Your task to perform on an android device: Open Android settings Image 0: 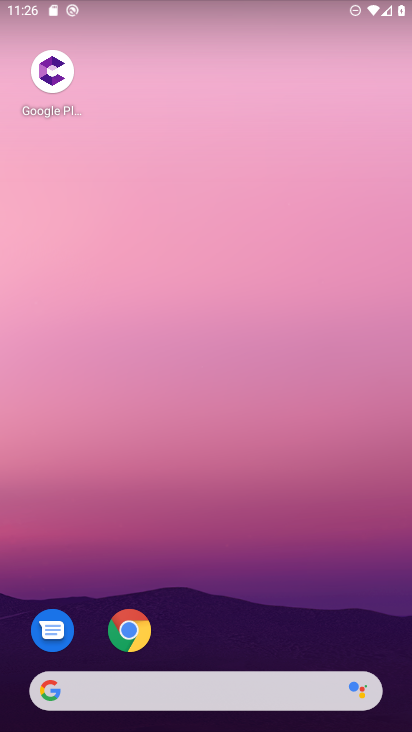
Step 0: drag from (409, 214) to (387, 449)
Your task to perform on an android device: Open Android settings Image 1: 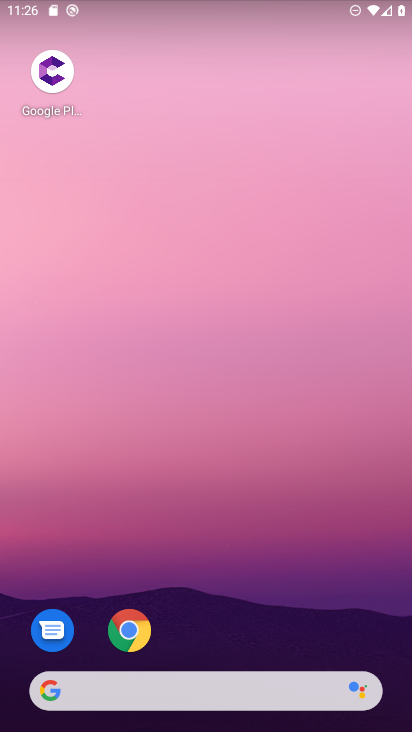
Step 1: drag from (255, 427) to (268, 2)
Your task to perform on an android device: Open Android settings Image 2: 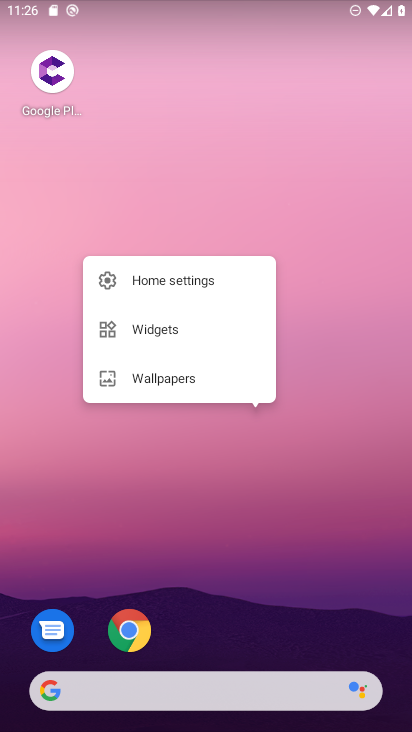
Step 2: click (217, 558)
Your task to perform on an android device: Open Android settings Image 3: 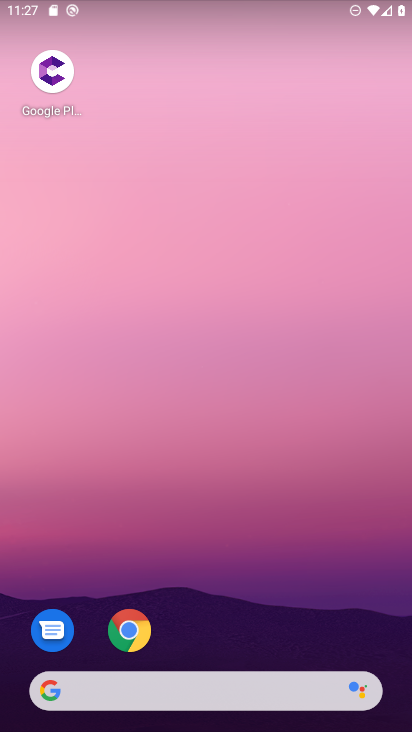
Step 3: drag from (282, 592) to (346, 0)
Your task to perform on an android device: Open Android settings Image 4: 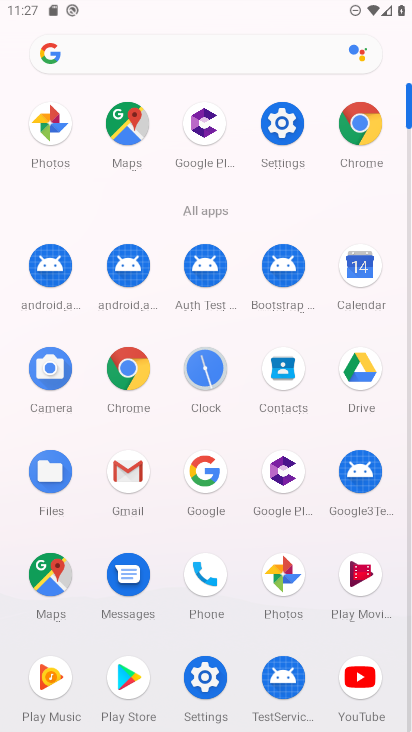
Step 4: click (279, 122)
Your task to perform on an android device: Open Android settings Image 5: 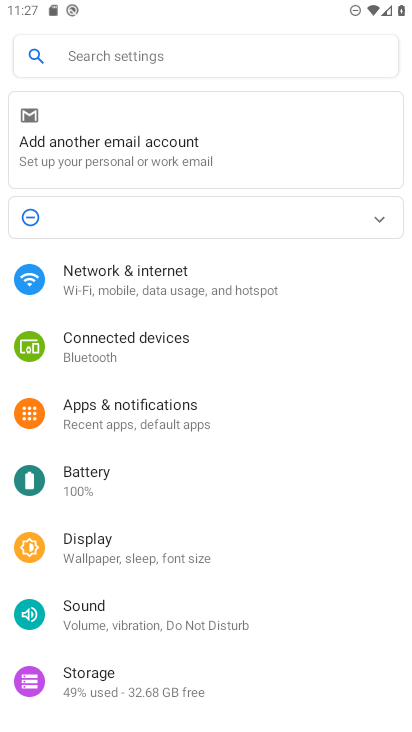
Step 5: task complete